Your task to perform on an android device: Open Youtube and go to the subscriptions tab Image 0: 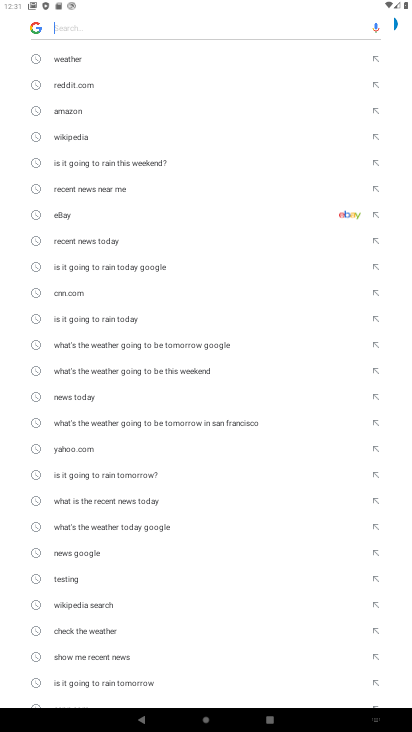
Step 0: press back button
Your task to perform on an android device: Open Youtube and go to the subscriptions tab Image 1: 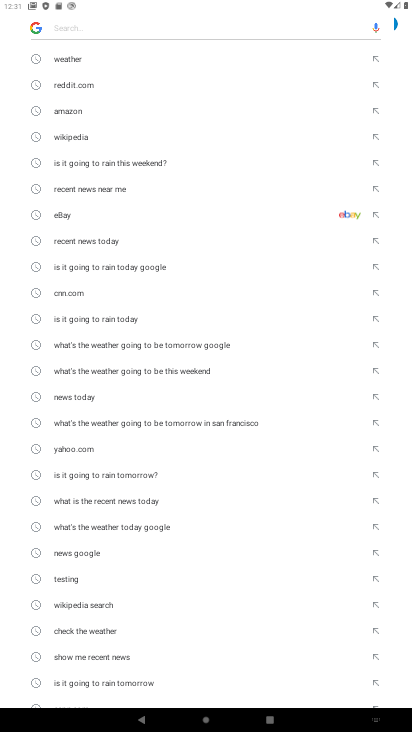
Step 1: press back button
Your task to perform on an android device: Open Youtube and go to the subscriptions tab Image 2: 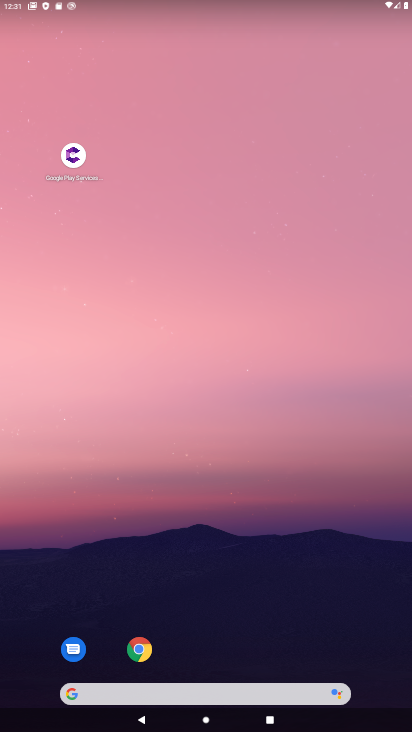
Step 2: drag from (266, 585) to (214, 173)
Your task to perform on an android device: Open Youtube and go to the subscriptions tab Image 3: 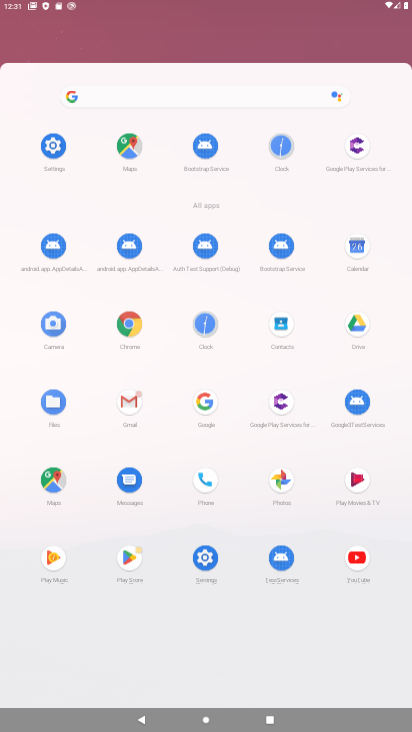
Step 3: drag from (279, 570) to (240, 176)
Your task to perform on an android device: Open Youtube and go to the subscriptions tab Image 4: 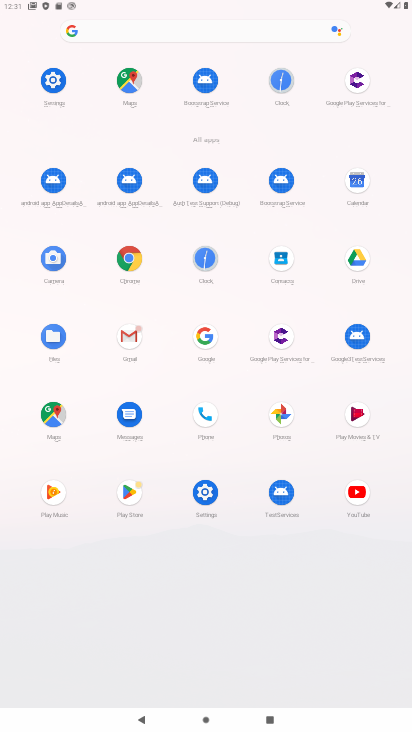
Step 4: click (360, 482)
Your task to perform on an android device: Open Youtube and go to the subscriptions tab Image 5: 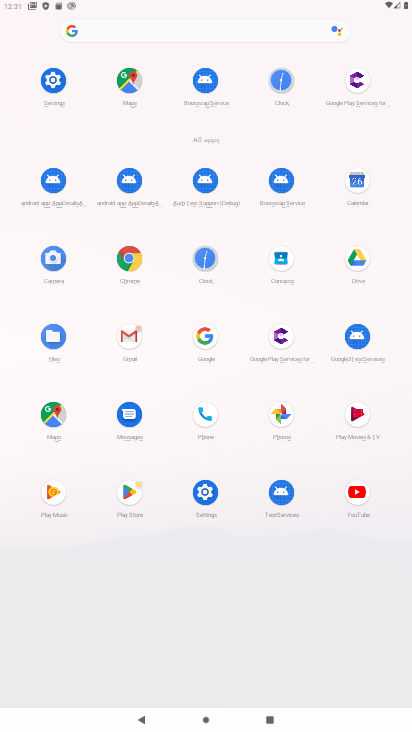
Step 5: click (360, 482)
Your task to perform on an android device: Open Youtube and go to the subscriptions tab Image 6: 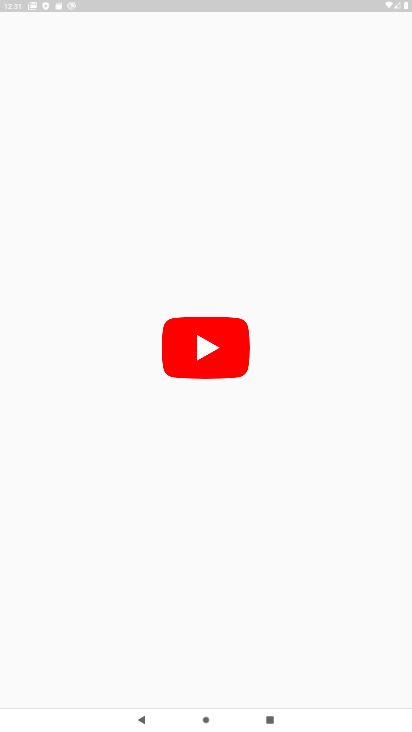
Step 6: click (360, 503)
Your task to perform on an android device: Open Youtube and go to the subscriptions tab Image 7: 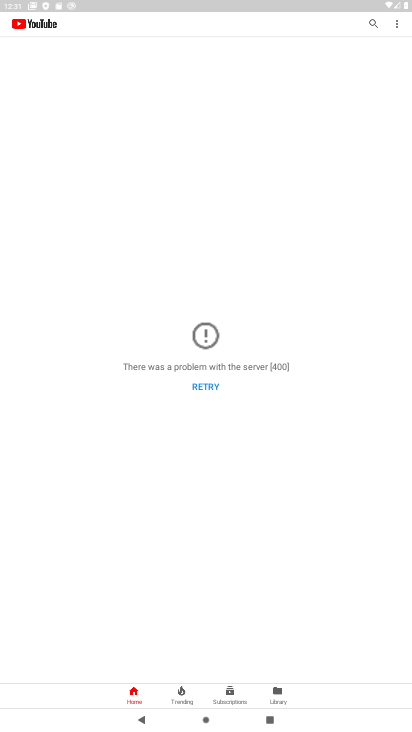
Step 7: click (230, 699)
Your task to perform on an android device: Open Youtube and go to the subscriptions tab Image 8: 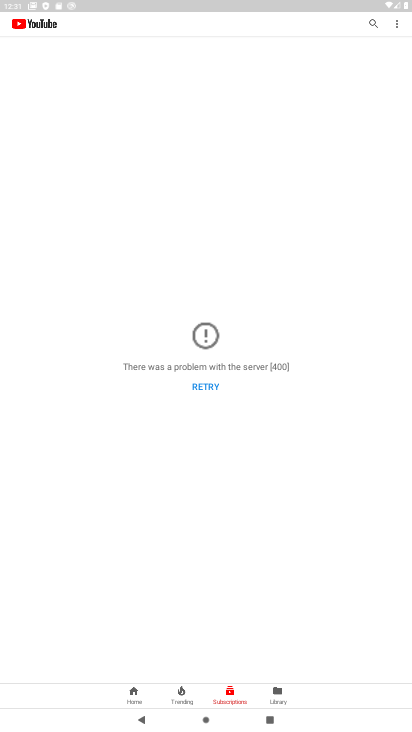
Step 8: click (231, 699)
Your task to perform on an android device: Open Youtube and go to the subscriptions tab Image 9: 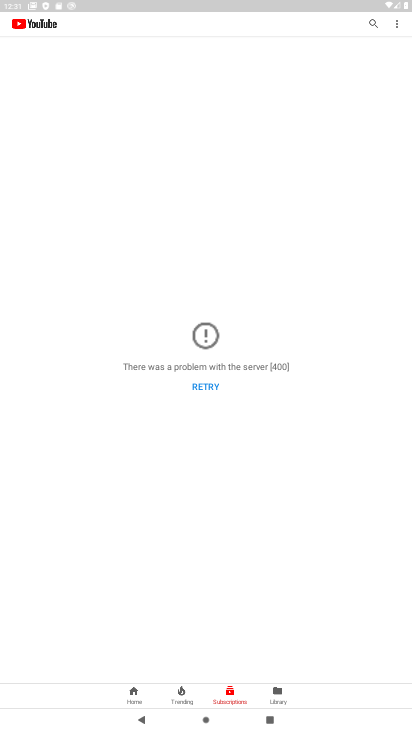
Step 9: task complete